Your task to perform on an android device: turn off priority inbox in the gmail app Image 0: 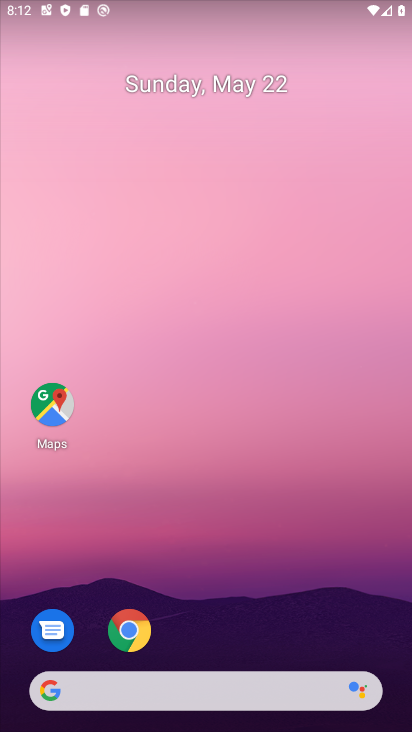
Step 0: drag from (384, 643) to (378, 196)
Your task to perform on an android device: turn off priority inbox in the gmail app Image 1: 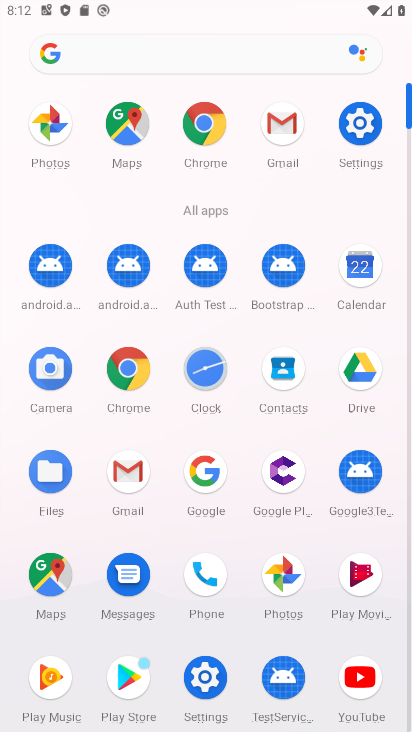
Step 1: click (128, 478)
Your task to perform on an android device: turn off priority inbox in the gmail app Image 2: 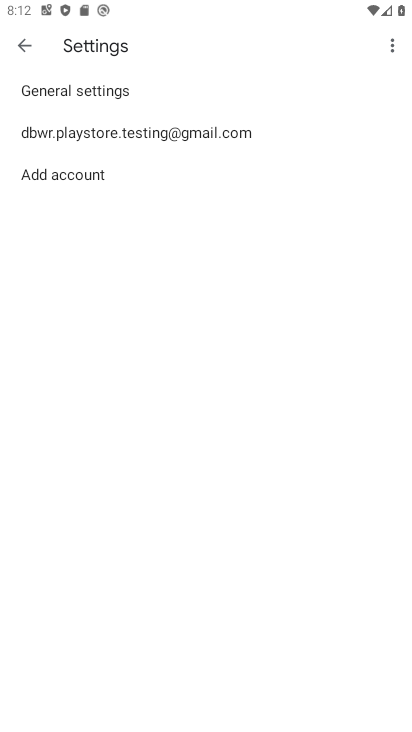
Step 2: click (145, 142)
Your task to perform on an android device: turn off priority inbox in the gmail app Image 3: 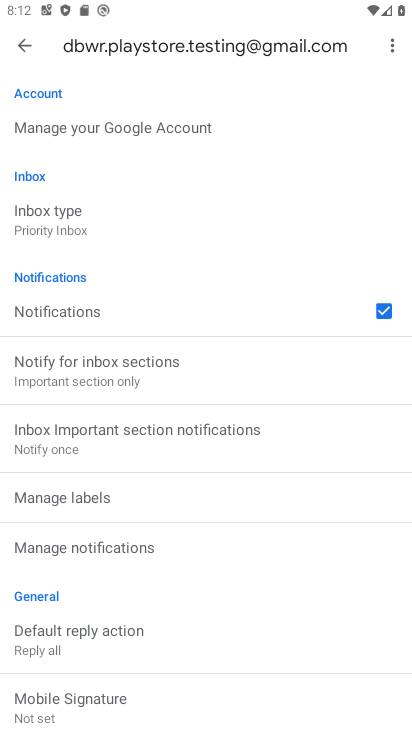
Step 3: task complete